Your task to perform on an android device: make emails show in primary in the gmail app Image 0: 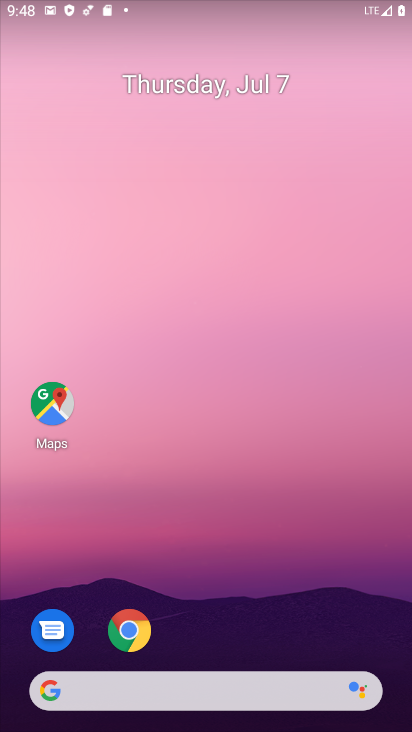
Step 0: click (323, 188)
Your task to perform on an android device: make emails show in primary in the gmail app Image 1: 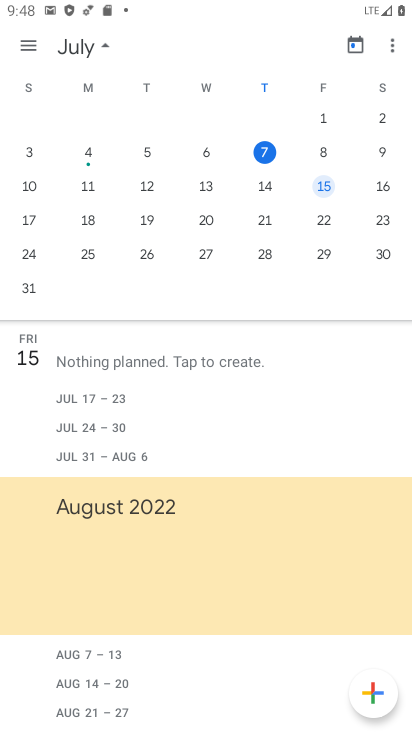
Step 1: drag from (235, 489) to (271, 191)
Your task to perform on an android device: make emails show in primary in the gmail app Image 2: 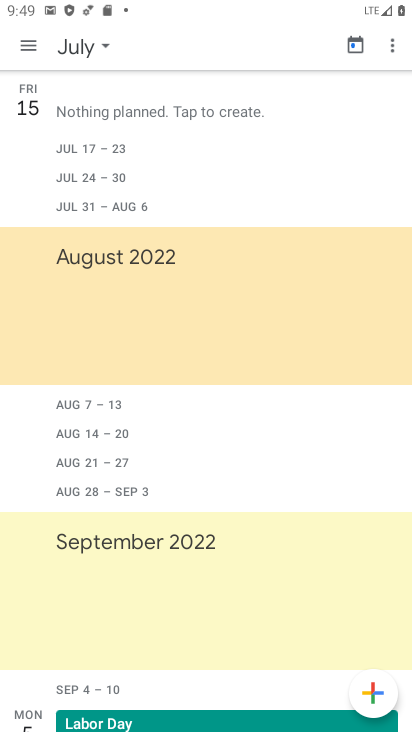
Step 2: drag from (196, 596) to (266, 240)
Your task to perform on an android device: make emails show in primary in the gmail app Image 3: 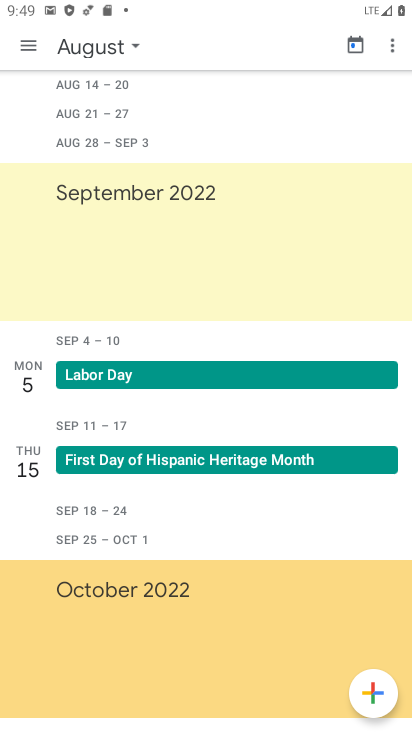
Step 3: drag from (180, 563) to (224, 269)
Your task to perform on an android device: make emails show in primary in the gmail app Image 4: 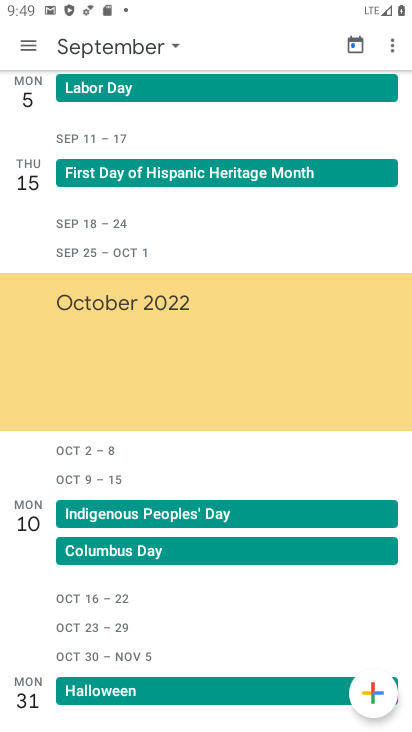
Step 4: drag from (227, 239) to (309, 731)
Your task to perform on an android device: make emails show in primary in the gmail app Image 5: 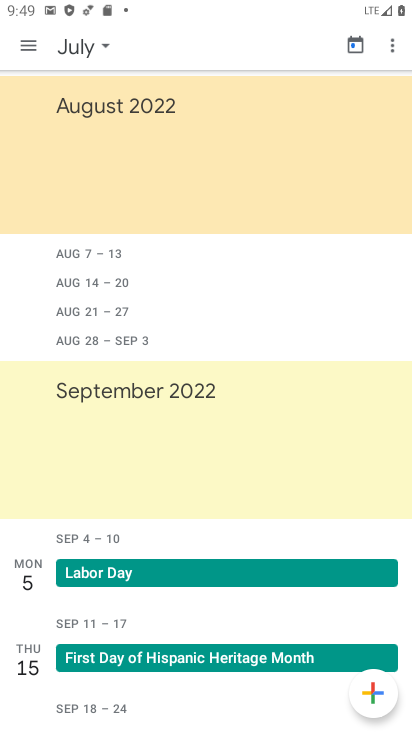
Step 5: press home button
Your task to perform on an android device: make emails show in primary in the gmail app Image 6: 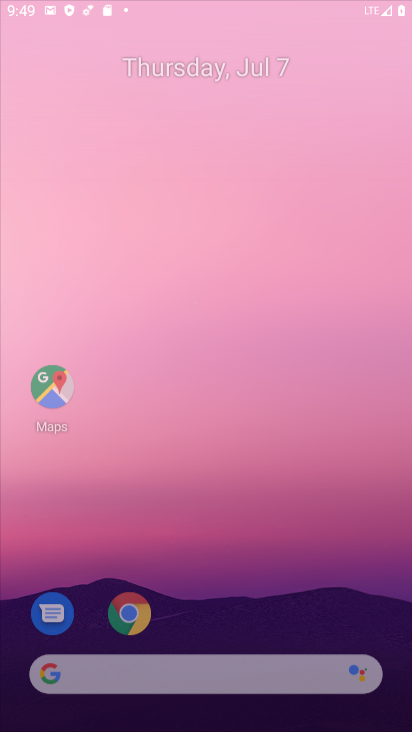
Step 6: drag from (217, 554) to (296, 20)
Your task to perform on an android device: make emails show in primary in the gmail app Image 7: 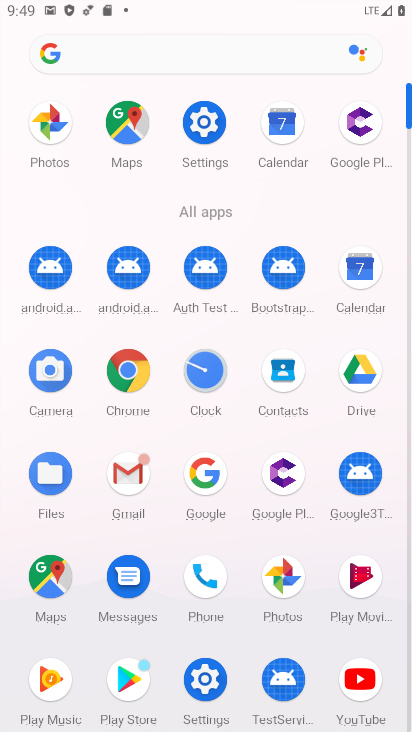
Step 7: click (116, 467)
Your task to perform on an android device: make emails show in primary in the gmail app Image 8: 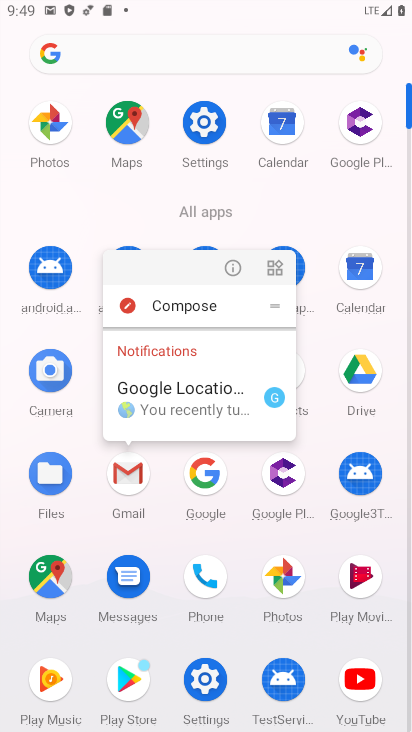
Step 8: click (226, 265)
Your task to perform on an android device: make emails show in primary in the gmail app Image 9: 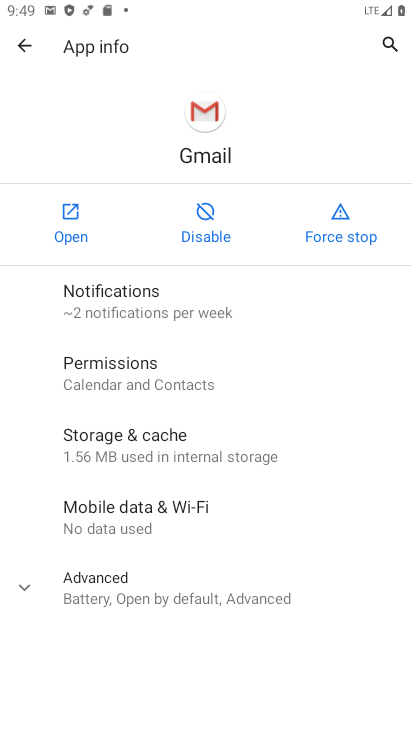
Step 9: click (62, 217)
Your task to perform on an android device: make emails show in primary in the gmail app Image 10: 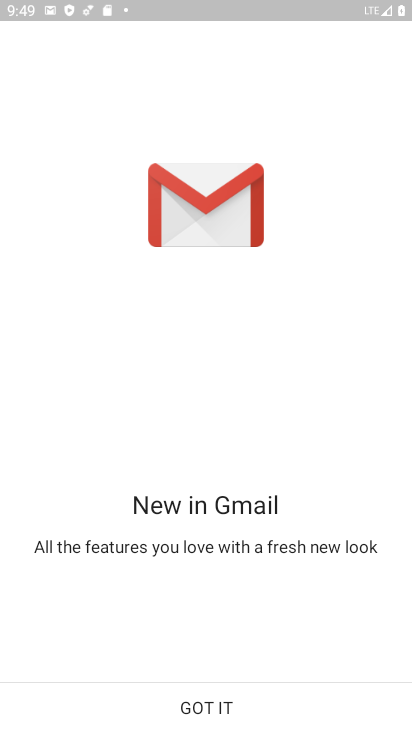
Step 10: click (183, 715)
Your task to perform on an android device: make emails show in primary in the gmail app Image 11: 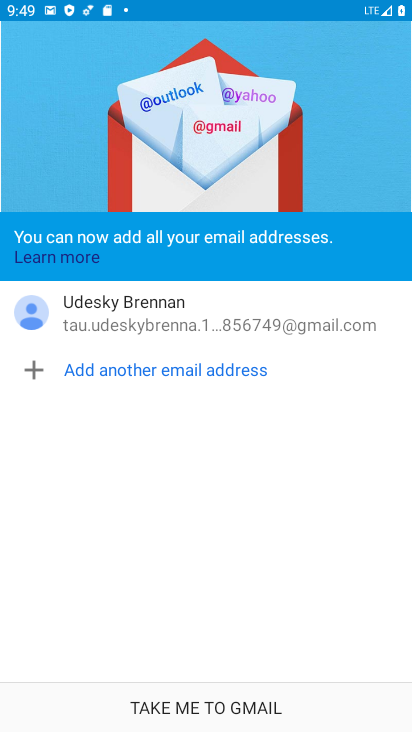
Step 11: click (201, 711)
Your task to perform on an android device: make emails show in primary in the gmail app Image 12: 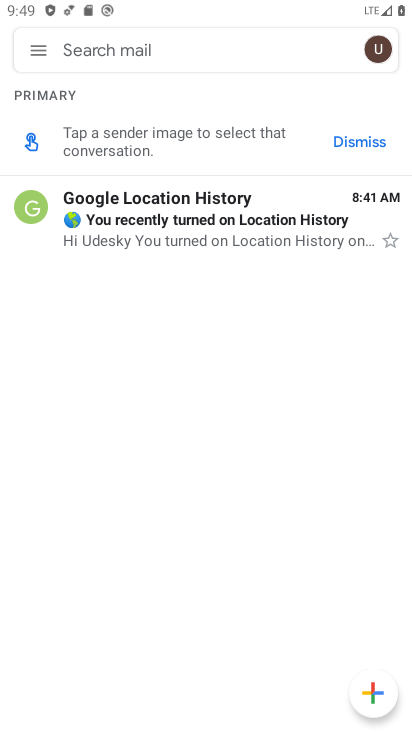
Step 12: click (43, 64)
Your task to perform on an android device: make emails show in primary in the gmail app Image 13: 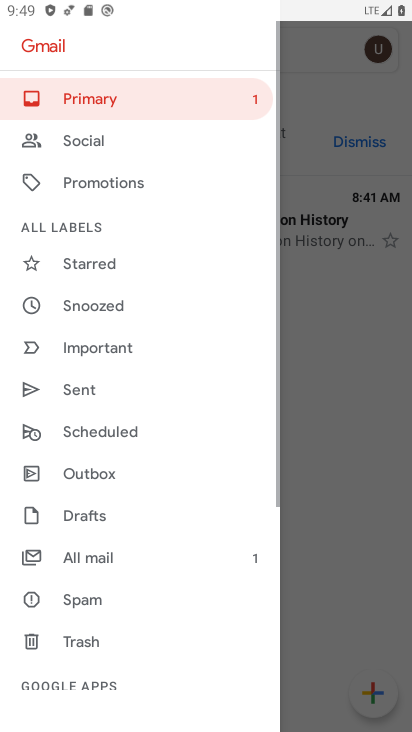
Step 13: click (87, 111)
Your task to perform on an android device: make emails show in primary in the gmail app Image 14: 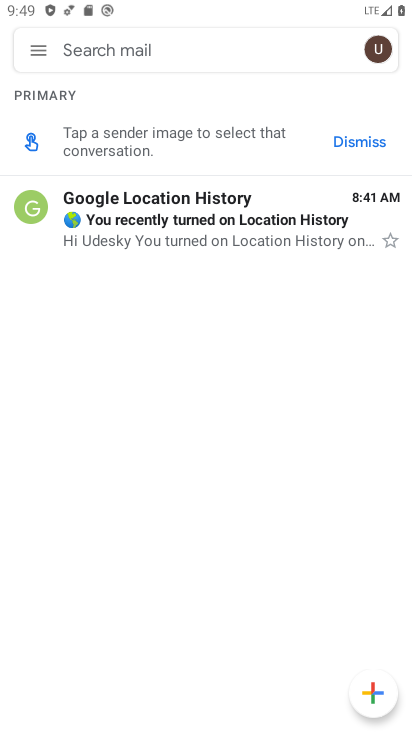
Step 14: task complete